Your task to perform on an android device: star an email in the gmail app Image 0: 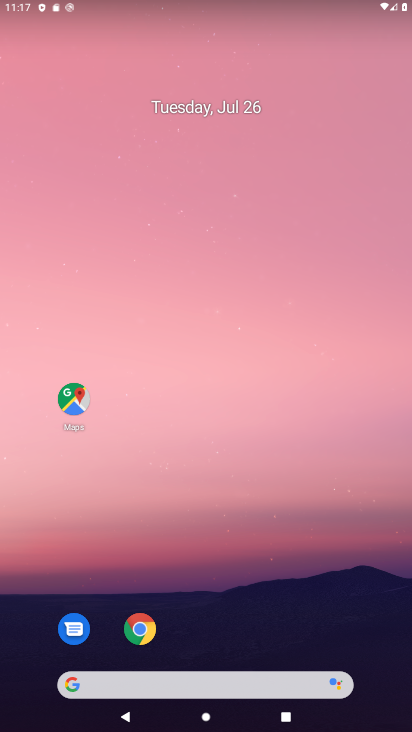
Step 0: drag from (229, 726) to (219, 244)
Your task to perform on an android device: star an email in the gmail app Image 1: 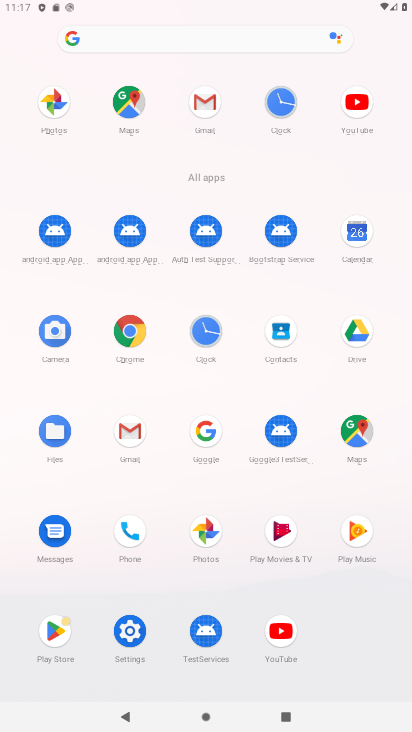
Step 1: click (135, 436)
Your task to perform on an android device: star an email in the gmail app Image 2: 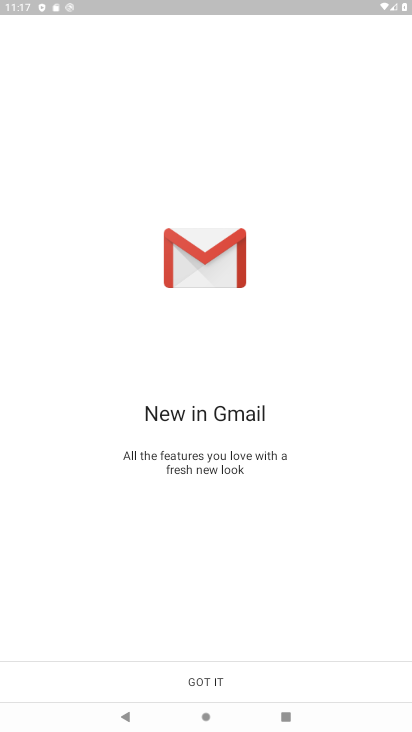
Step 2: click (201, 681)
Your task to perform on an android device: star an email in the gmail app Image 3: 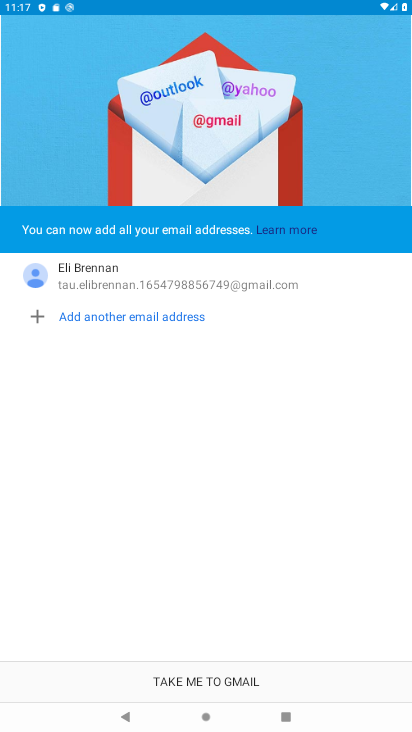
Step 3: click (186, 676)
Your task to perform on an android device: star an email in the gmail app Image 4: 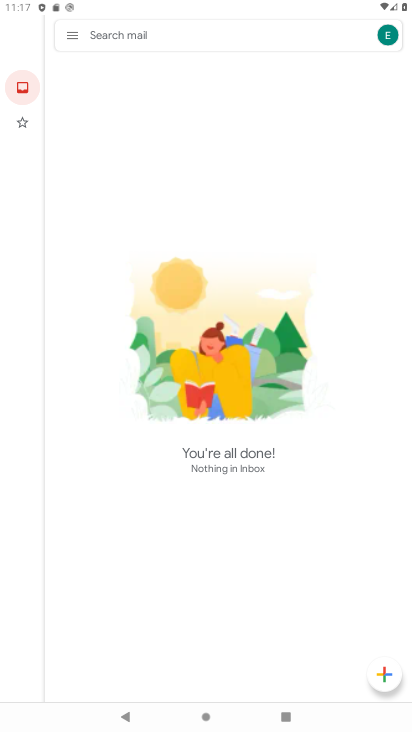
Step 4: task complete